Your task to perform on an android device: toggle wifi Image 0: 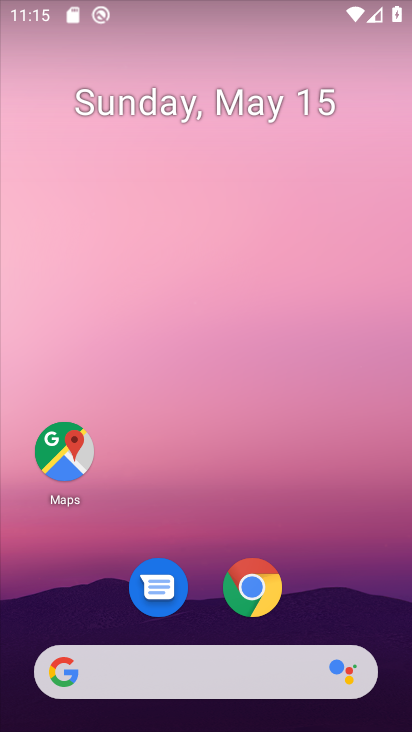
Step 0: drag from (197, 616) to (207, 148)
Your task to perform on an android device: toggle wifi Image 1: 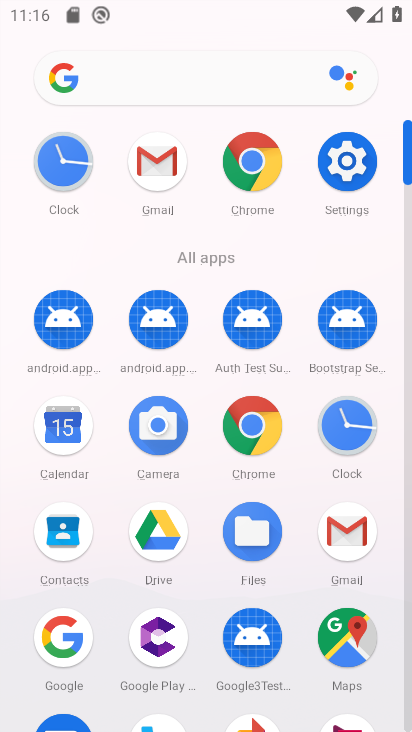
Step 1: click (345, 174)
Your task to perform on an android device: toggle wifi Image 2: 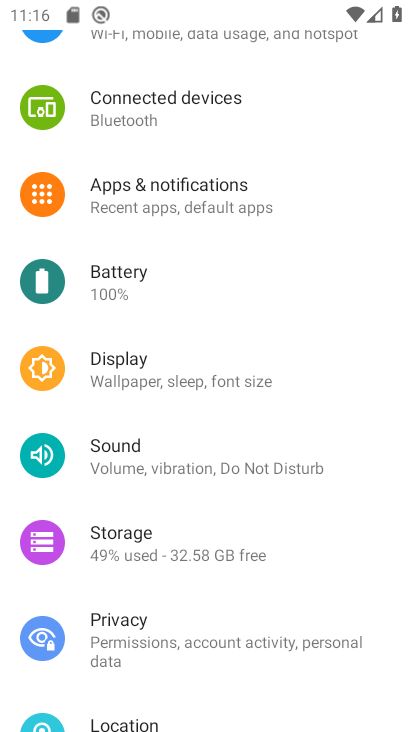
Step 2: drag from (173, 141) to (175, 552)
Your task to perform on an android device: toggle wifi Image 3: 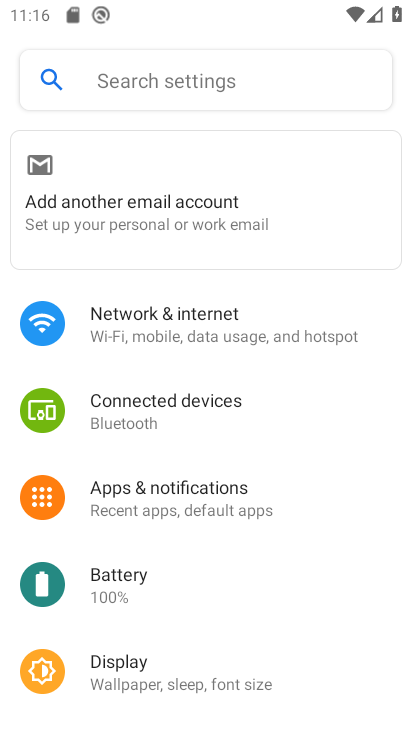
Step 3: drag from (191, 207) to (199, 535)
Your task to perform on an android device: toggle wifi Image 4: 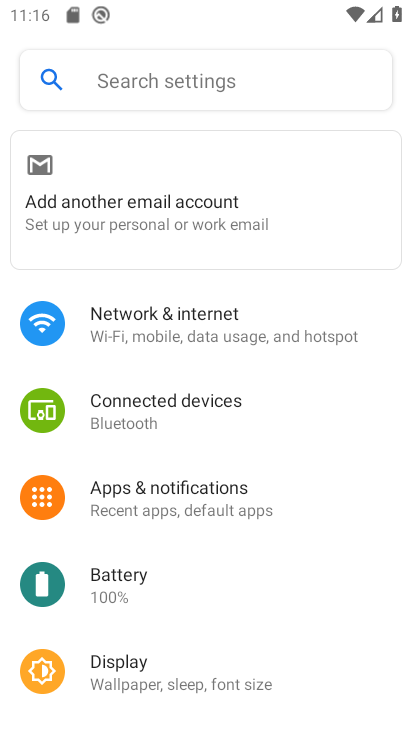
Step 4: click (159, 307)
Your task to perform on an android device: toggle wifi Image 5: 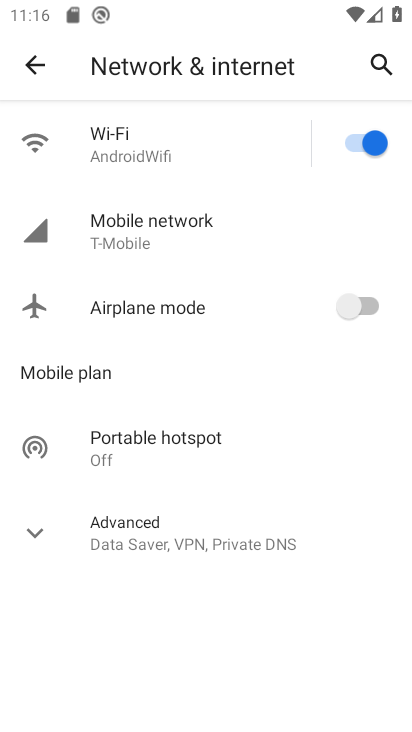
Step 5: click (157, 148)
Your task to perform on an android device: toggle wifi Image 6: 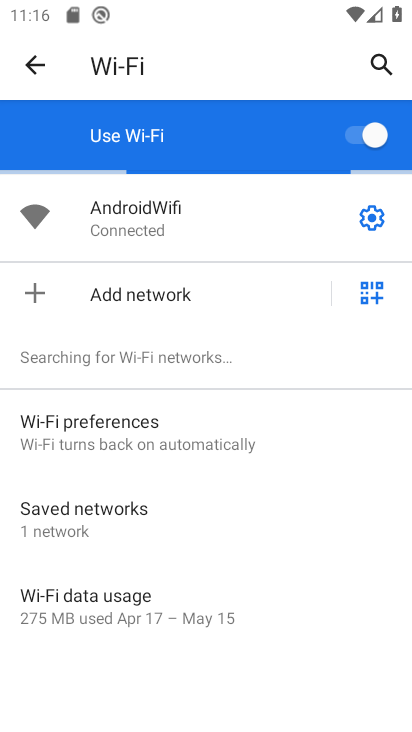
Step 6: click (353, 129)
Your task to perform on an android device: toggle wifi Image 7: 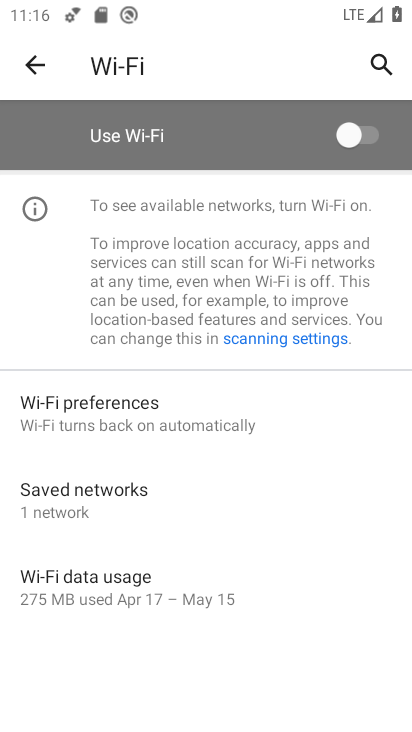
Step 7: task complete